Your task to perform on an android device: Show me recent news Image 0: 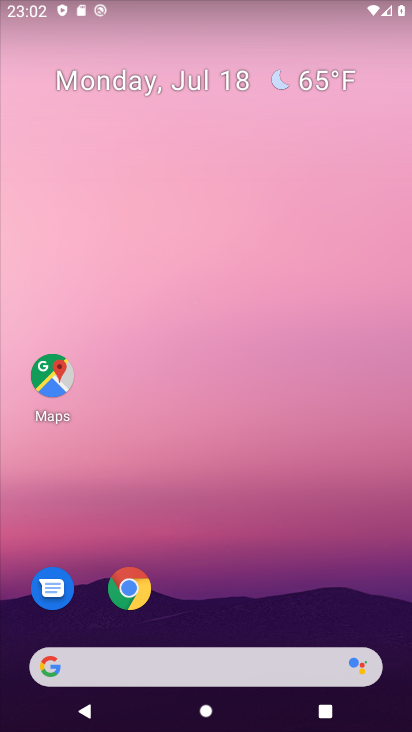
Step 0: click (50, 665)
Your task to perform on an android device: Show me recent news Image 1: 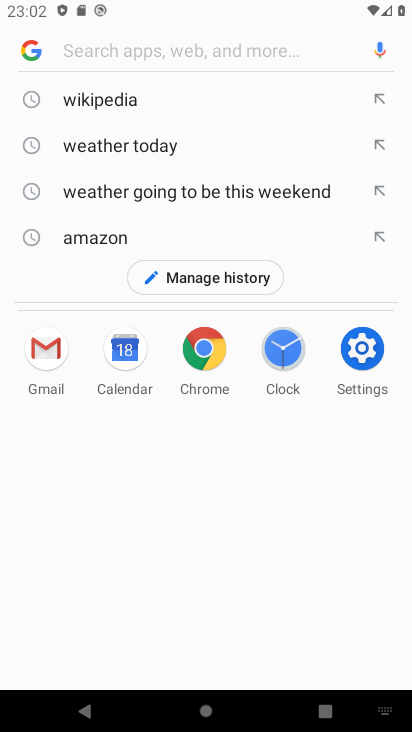
Step 1: type "recent news"
Your task to perform on an android device: Show me recent news Image 2: 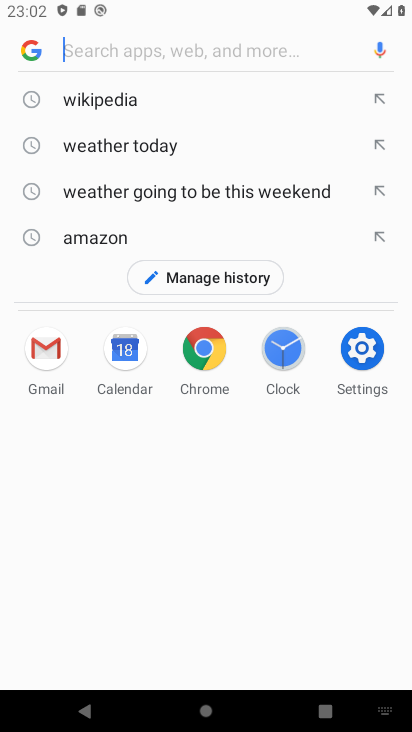
Step 2: click (154, 45)
Your task to perform on an android device: Show me recent news Image 3: 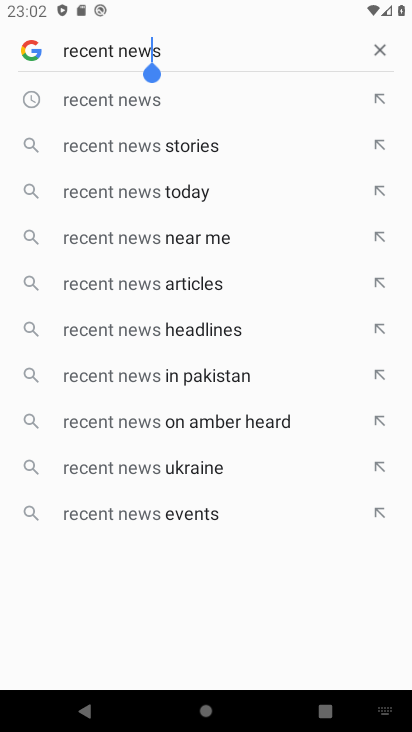
Step 3: press enter
Your task to perform on an android device: Show me recent news Image 4: 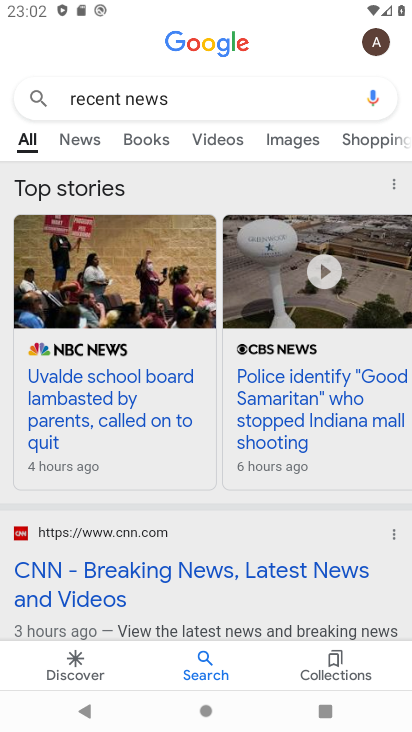
Step 4: task complete